Your task to perform on an android device: open the mobile data screen to see how much data has been used Image 0: 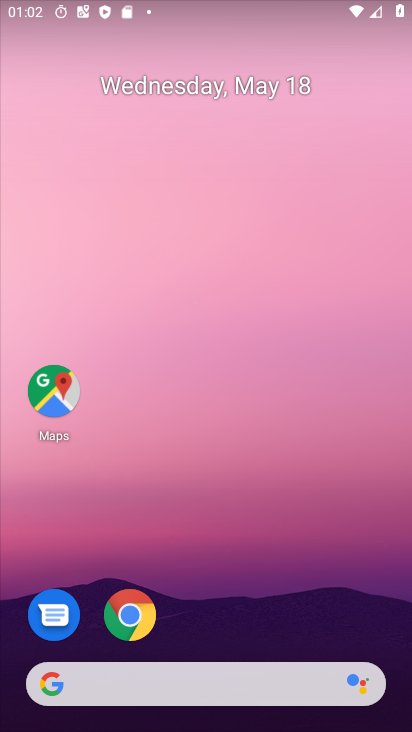
Step 0: drag from (210, 621) to (210, 5)
Your task to perform on an android device: open the mobile data screen to see how much data has been used Image 1: 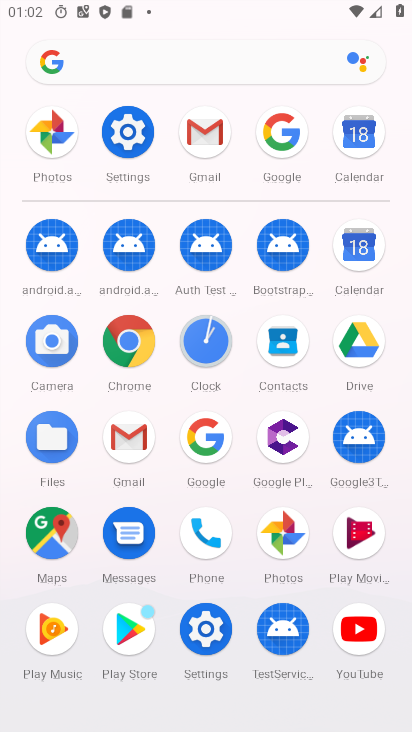
Step 1: click (133, 178)
Your task to perform on an android device: open the mobile data screen to see how much data has been used Image 2: 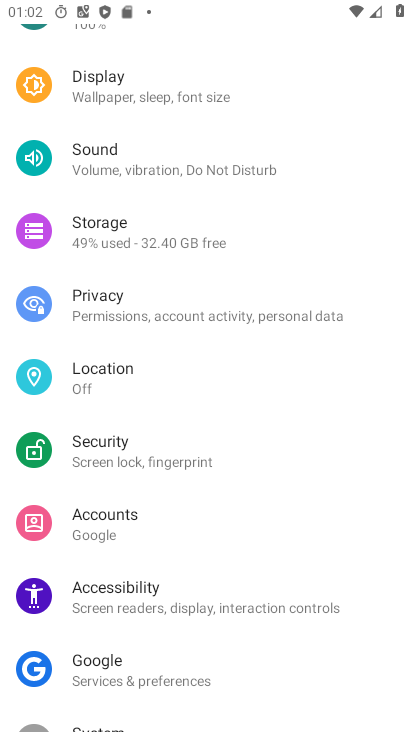
Step 2: drag from (140, 159) to (135, 571)
Your task to perform on an android device: open the mobile data screen to see how much data has been used Image 3: 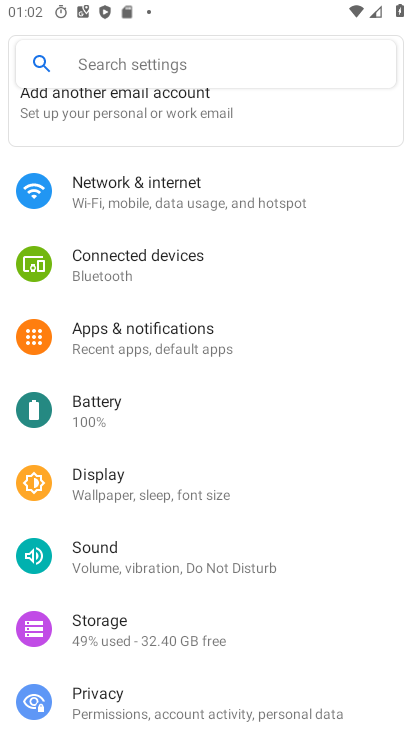
Step 3: drag from (179, 191) to (180, 226)
Your task to perform on an android device: open the mobile data screen to see how much data has been used Image 4: 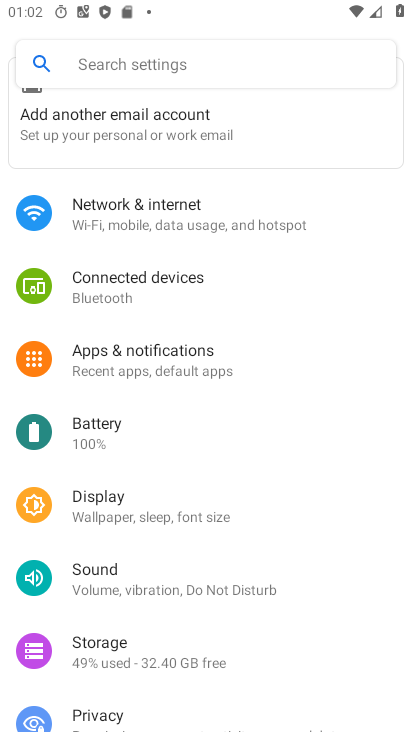
Step 4: click (180, 226)
Your task to perform on an android device: open the mobile data screen to see how much data has been used Image 5: 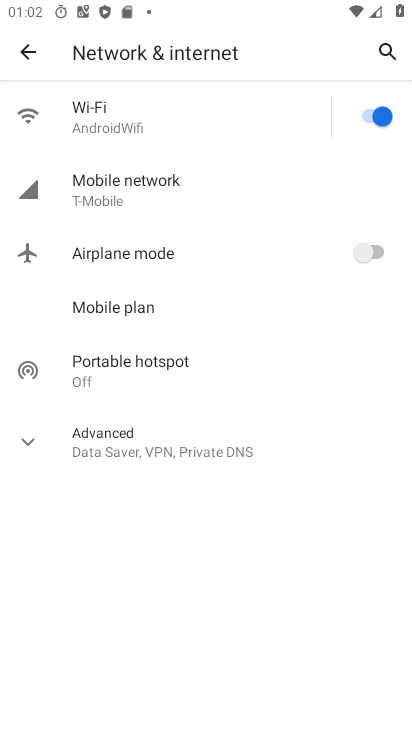
Step 5: click (174, 196)
Your task to perform on an android device: open the mobile data screen to see how much data has been used Image 6: 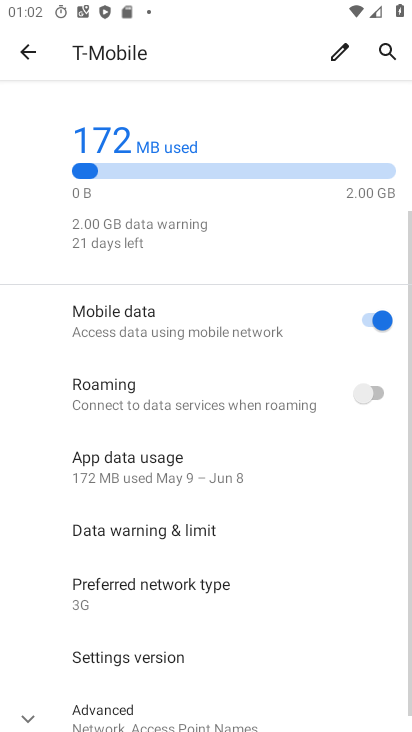
Step 6: drag from (156, 534) to (175, 418)
Your task to perform on an android device: open the mobile data screen to see how much data has been used Image 7: 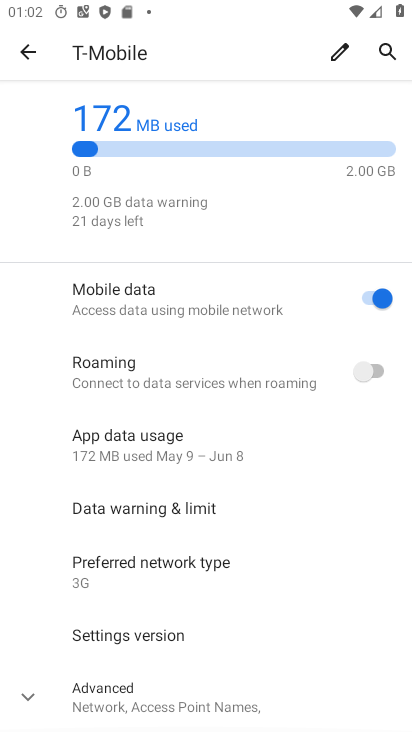
Step 7: click (147, 430)
Your task to perform on an android device: open the mobile data screen to see how much data has been used Image 8: 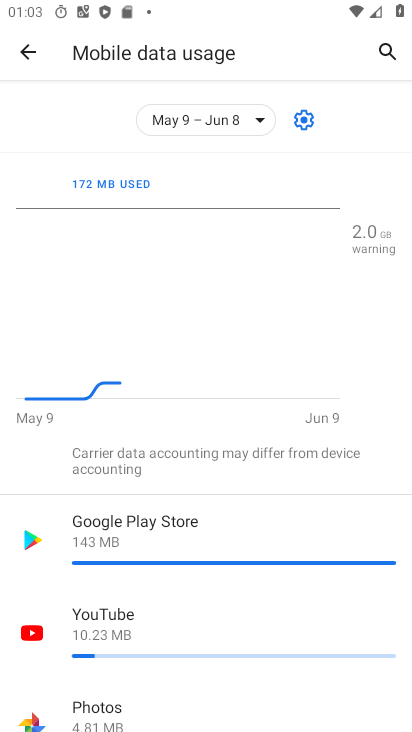
Step 8: task complete